Your task to perform on an android device: check storage Image 0: 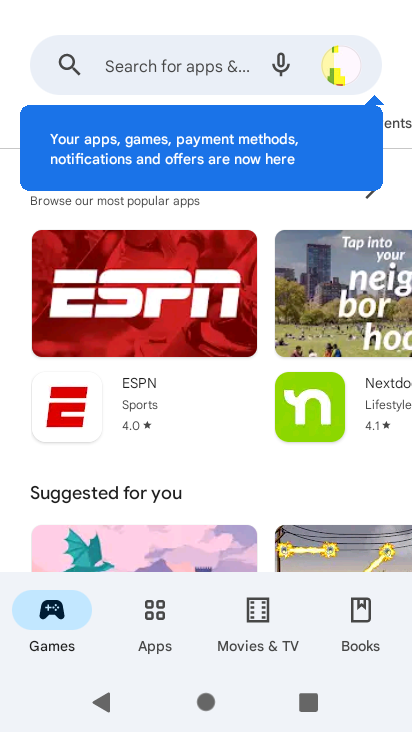
Step 0: press home button
Your task to perform on an android device: check storage Image 1: 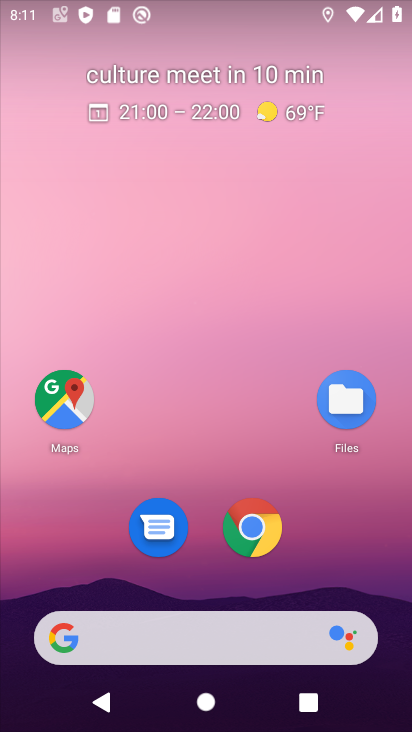
Step 1: drag from (207, 576) to (166, 139)
Your task to perform on an android device: check storage Image 2: 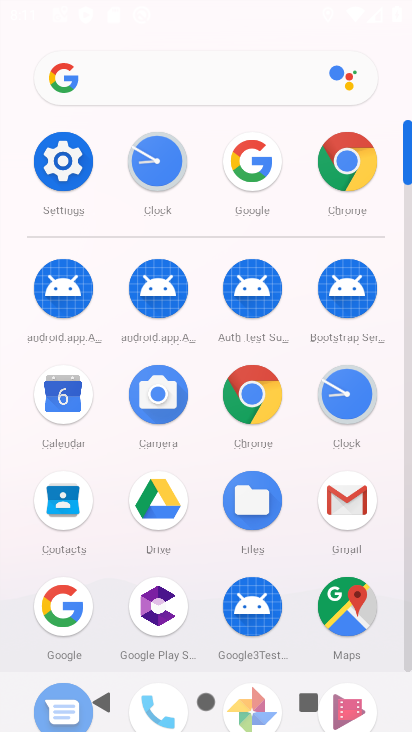
Step 2: click (66, 162)
Your task to perform on an android device: check storage Image 3: 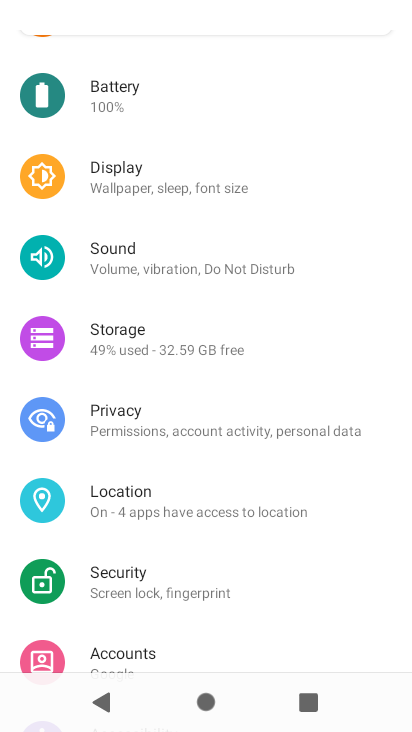
Step 3: click (158, 342)
Your task to perform on an android device: check storage Image 4: 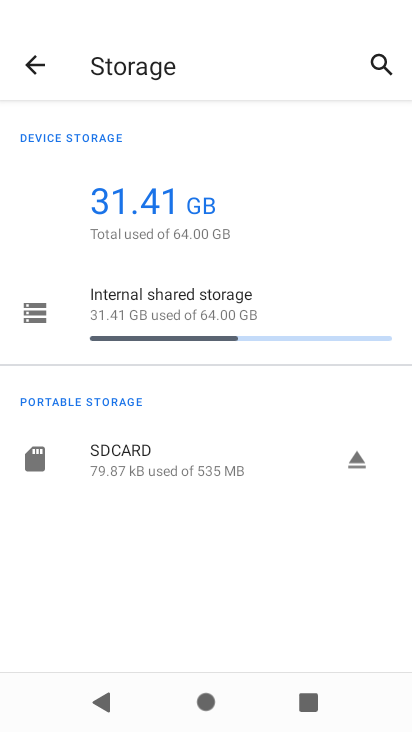
Step 4: task complete